Your task to perform on an android device: turn off notifications in google photos Image 0: 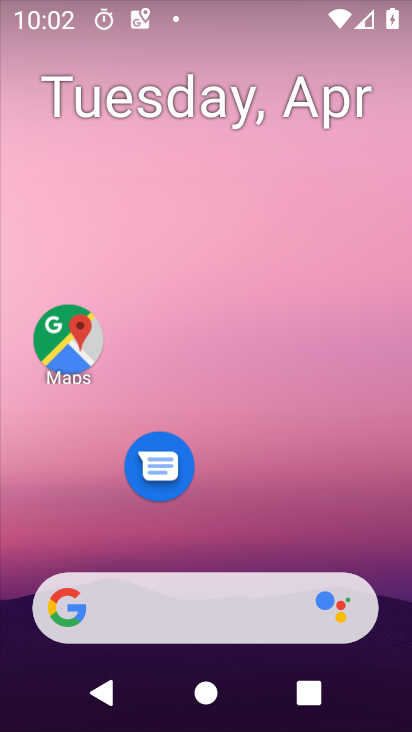
Step 0: drag from (340, 540) to (326, 258)
Your task to perform on an android device: turn off notifications in google photos Image 1: 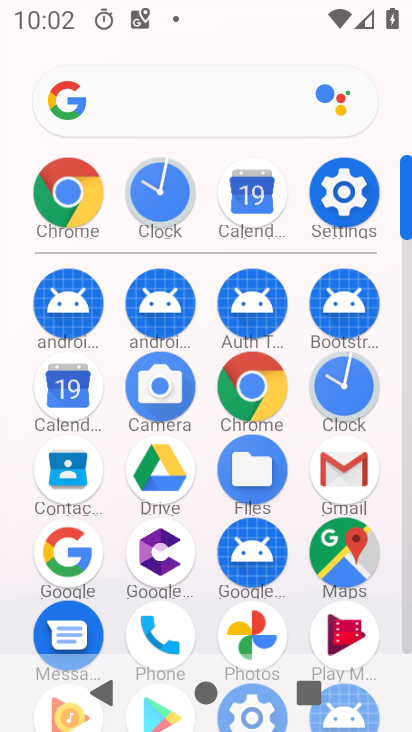
Step 1: click (239, 636)
Your task to perform on an android device: turn off notifications in google photos Image 2: 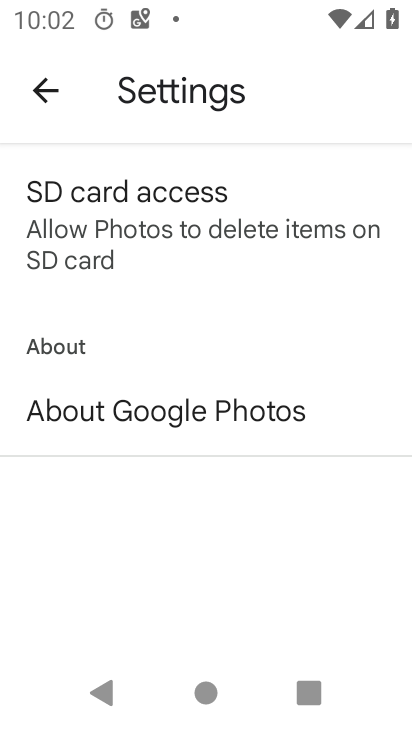
Step 2: click (60, 90)
Your task to perform on an android device: turn off notifications in google photos Image 3: 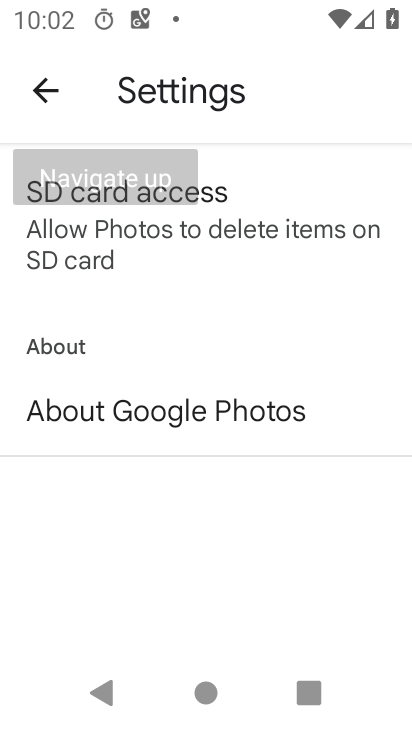
Step 3: click (59, 113)
Your task to perform on an android device: turn off notifications in google photos Image 4: 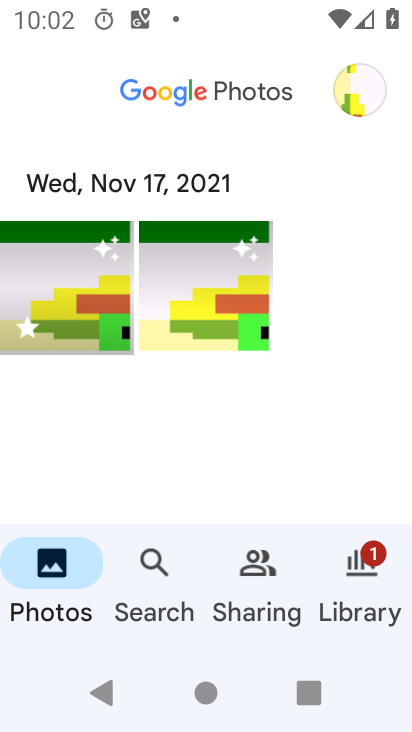
Step 4: click (347, 104)
Your task to perform on an android device: turn off notifications in google photos Image 5: 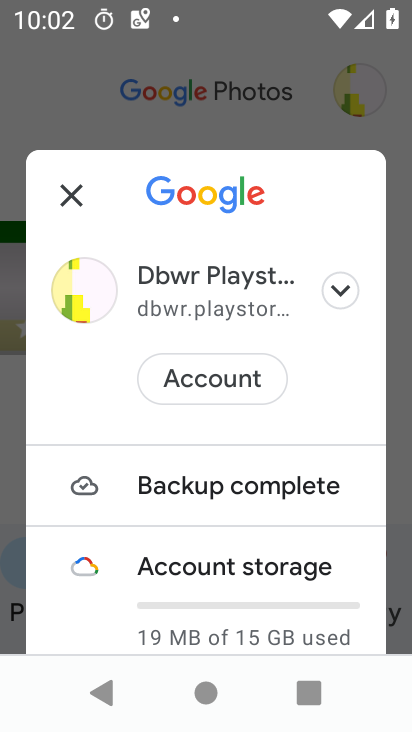
Step 5: task complete